Your task to perform on an android device: Set the phone to "Do not disturb". Image 0: 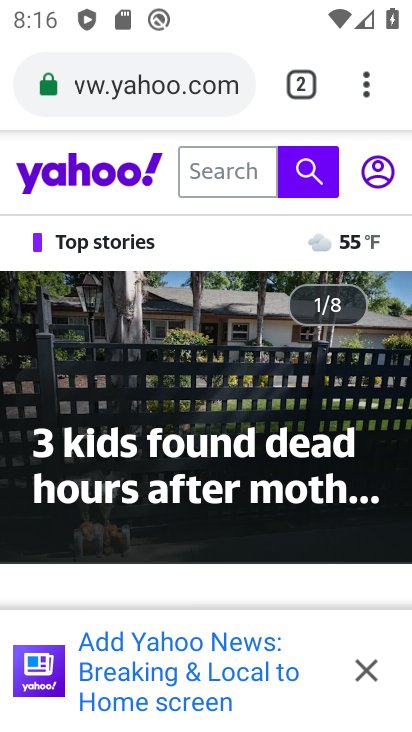
Step 0: press home button
Your task to perform on an android device: Set the phone to "Do not disturb". Image 1: 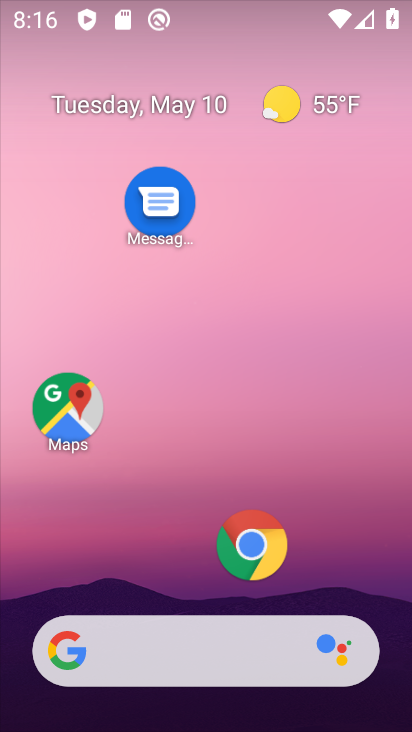
Step 1: drag from (172, 557) to (197, 135)
Your task to perform on an android device: Set the phone to "Do not disturb". Image 2: 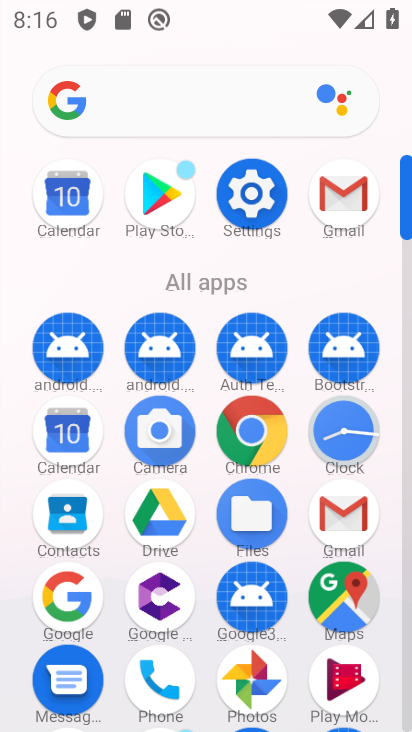
Step 2: click (90, 575)
Your task to perform on an android device: Set the phone to "Do not disturb". Image 3: 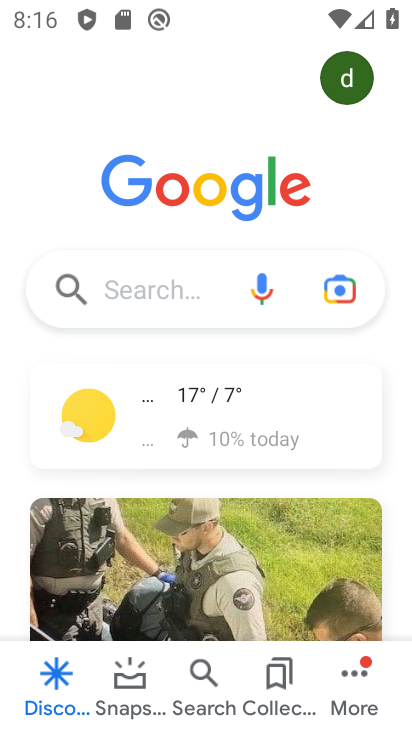
Step 3: press home button
Your task to perform on an android device: Set the phone to "Do not disturb". Image 4: 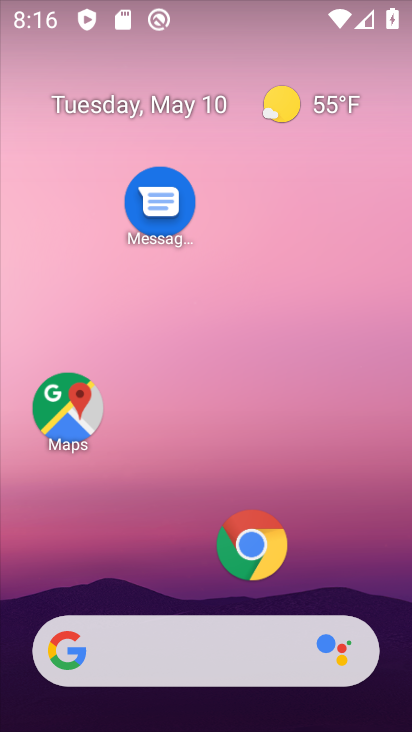
Step 4: drag from (175, 575) to (213, 96)
Your task to perform on an android device: Set the phone to "Do not disturb". Image 5: 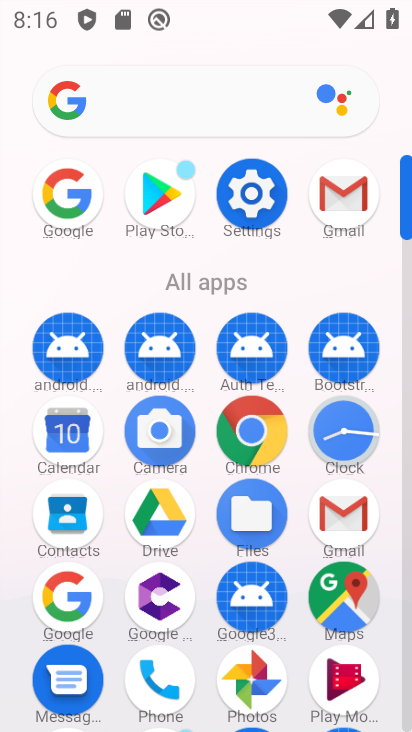
Step 5: click (266, 170)
Your task to perform on an android device: Set the phone to "Do not disturb". Image 6: 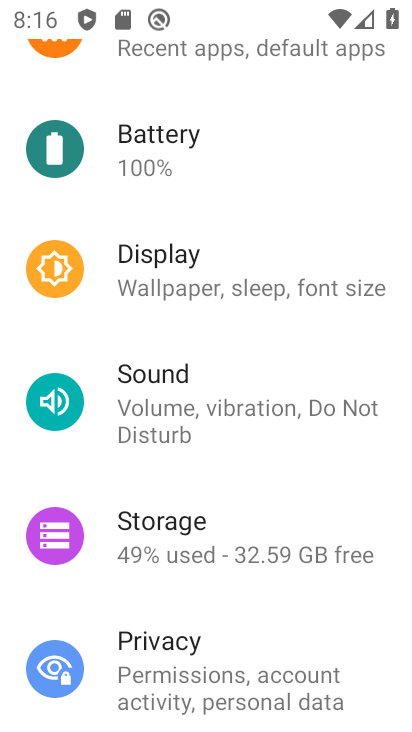
Step 6: drag from (219, 665) to (232, 309)
Your task to perform on an android device: Set the phone to "Do not disturb". Image 7: 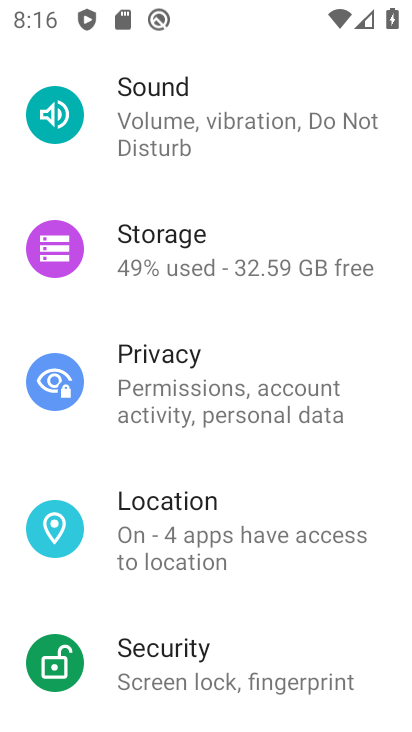
Step 7: click (173, 161)
Your task to perform on an android device: Set the phone to "Do not disturb". Image 8: 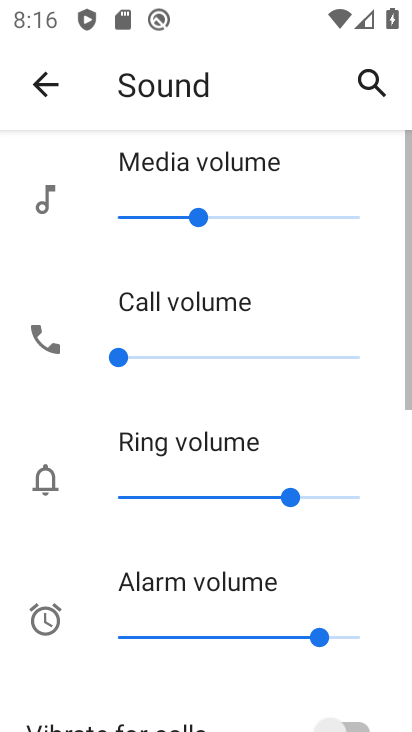
Step 8: drag from (199, 643) to (256, 240)
Your task to perform on an android device: Set the phone to "Do not disturb". Image 9: 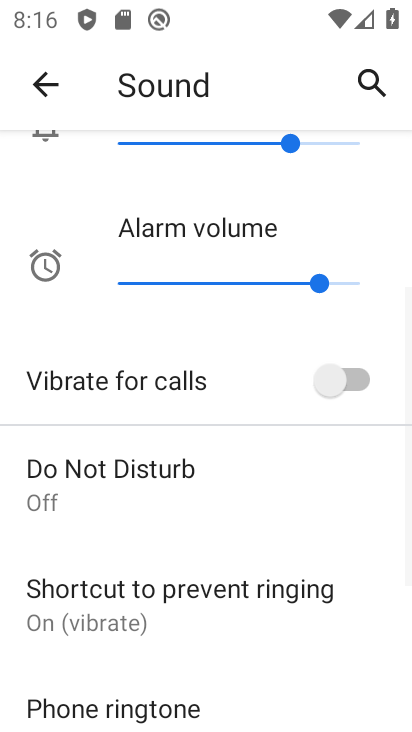
Step 9: drag from (206, 701) to (219, 328)
Your task to perform on an android device: Set the phone to "Do not disturb". Image 10: 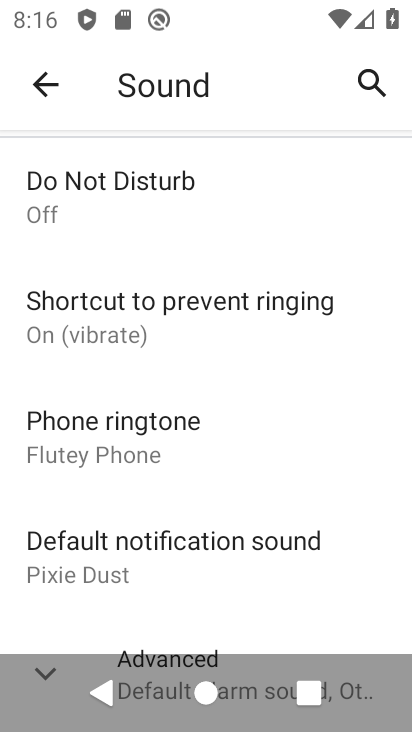
Step 10: drag from (184, 596) to (214, 338)
Your task to perform on an android device: Set the phone to "Do not disturb". Image 11: 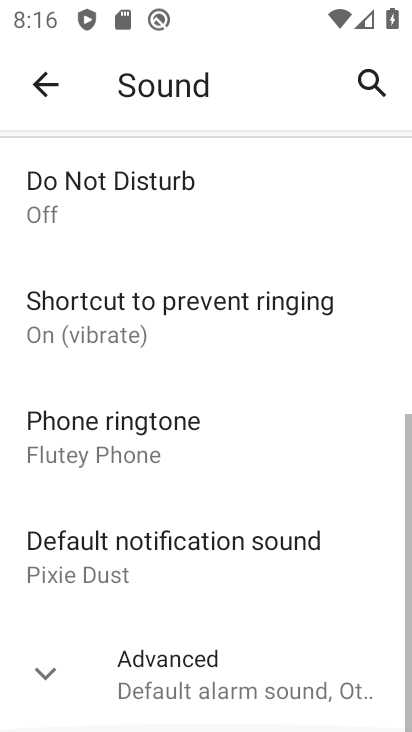
Step 11: click (121, 195)
Your task to perform on an android device: Set the phone to "Do not disturb". Image 12: 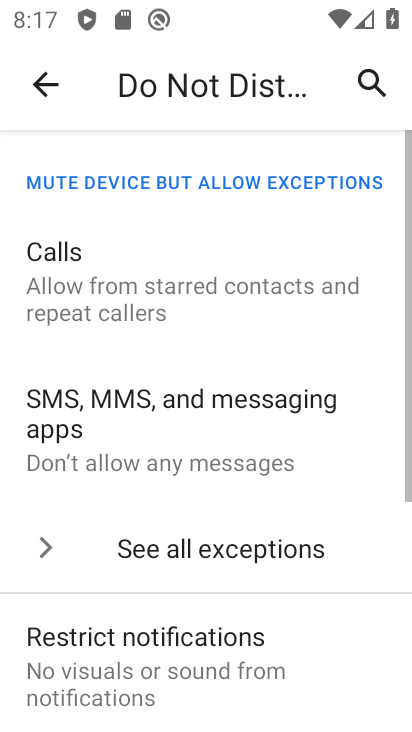
Step 12: drag from (156, 667) to (272, 271)
Your task to perform on an android device: Set the phone to "Do not disturb". Image 13: 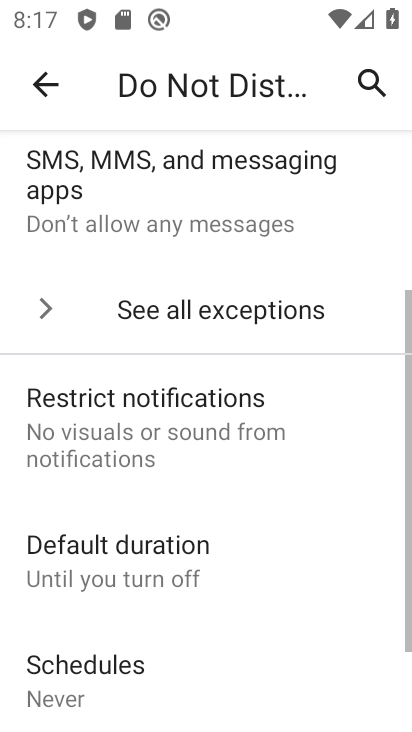
Step 13: drag from (192, 616) to (219, 194)
Your task to perform on an android device: Set the phone to "Do not disturb". Image 14: 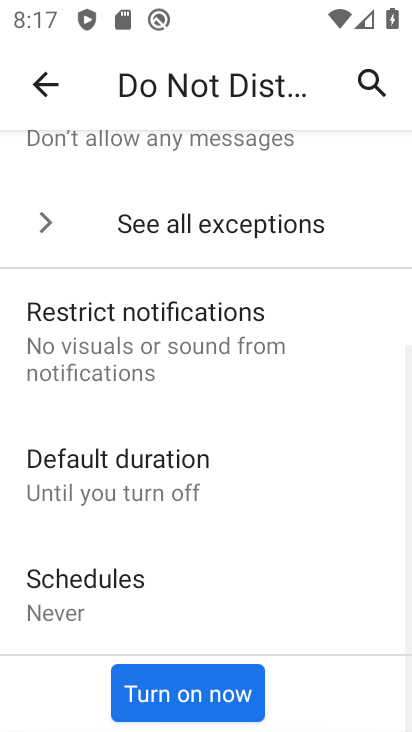
Step 14: click (188, 664)
Your task to perform on an android device: Set the phone to "Do not disturb". Image 15: 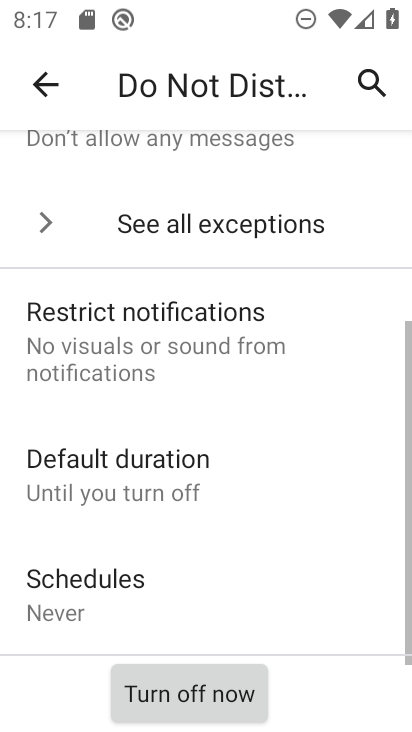
Step 15: task complete